Your task to perform on an android device: turn on improve location accuracy Image 0: 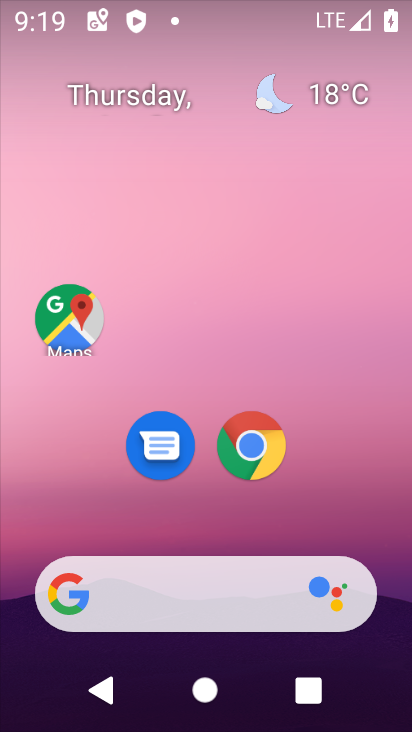
Step 0: drag from (384, 530) to (247, 159)
Your task to perform on an android device: turn on improve location accuracy Image 1: 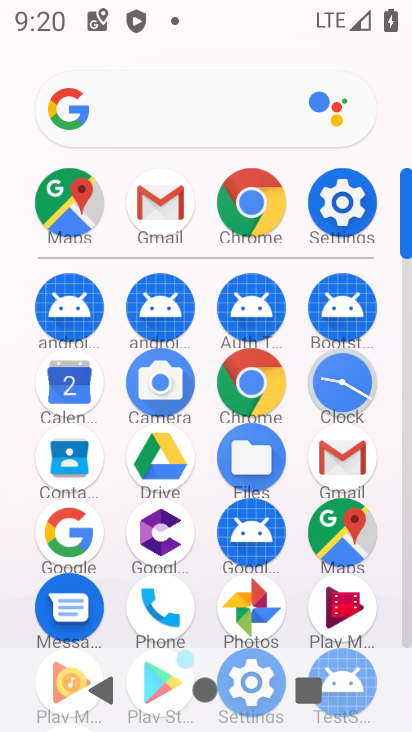
Step 1: click (327, 214)
Your task to perform on an android device: turn on improve location accuracy Image 2: 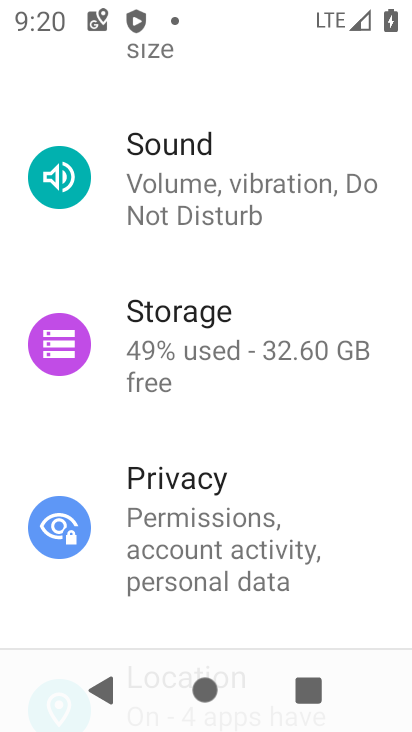
Step 2: drag from (301, 449) to (253, 214)
Your task to perform on an android device: turn on improve location accuracy Image 3: 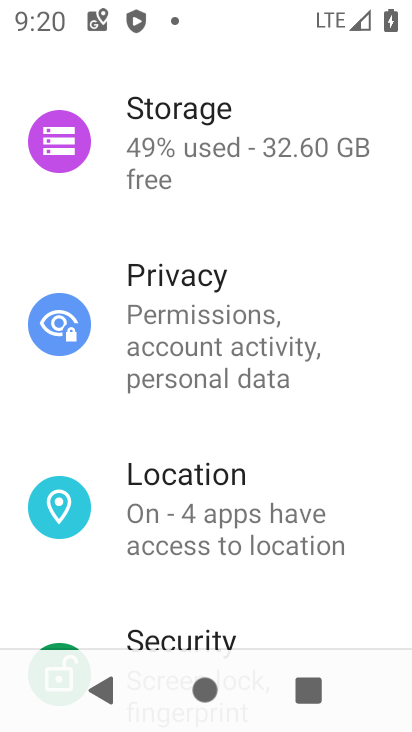
Step 3: click (296, 523)
Your task to perform on an android device: turn on improve location accuracy Image 4: 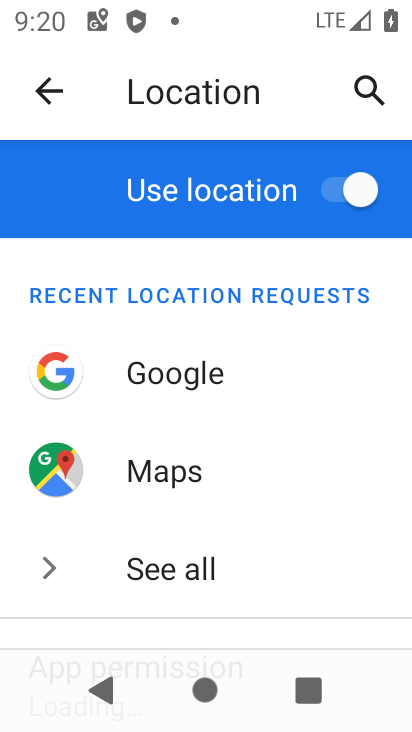
Step 4: drag from (289, 608) to (187, 135)
Your task to perform on an android device: turn on improve location accuracy Image 5: 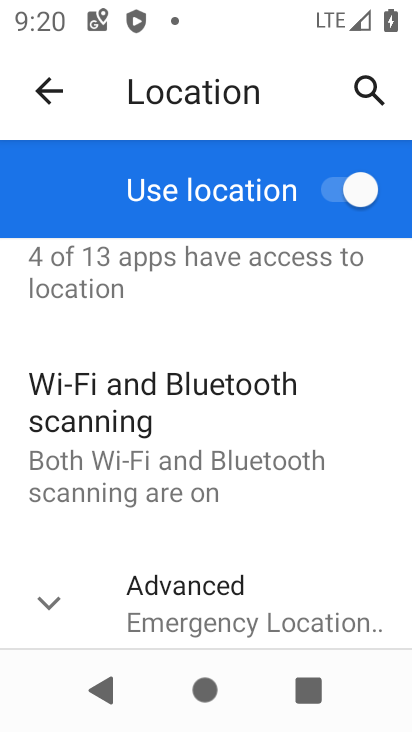
Step 5: click (281, 587)
Your task to perform on an android device: turn on improve location accuracy Image 6: 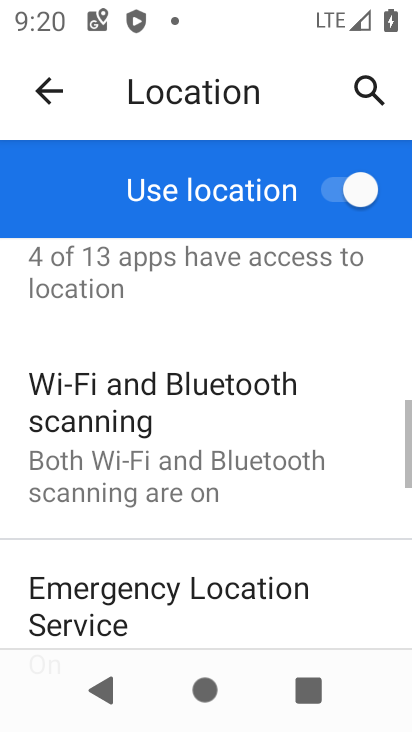
Step 6: drag from (281, 587) to (210, 198)
Your task to perform on an android device: turn on improve location accuracy Image 7: 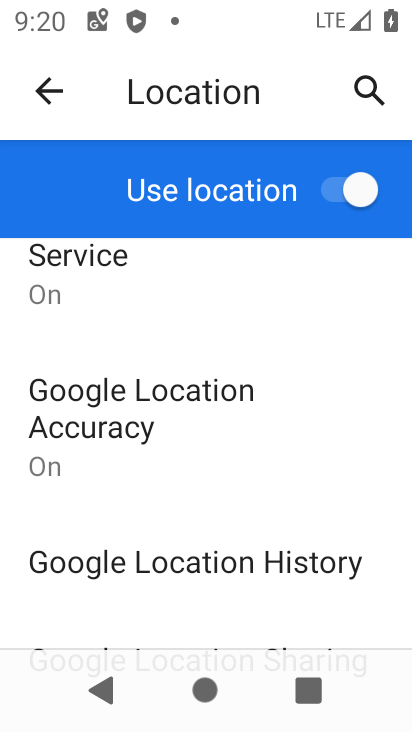
Step 7: click (251, 391)
Your task to perform on an android device: turn on improve location accuracy Image 8: 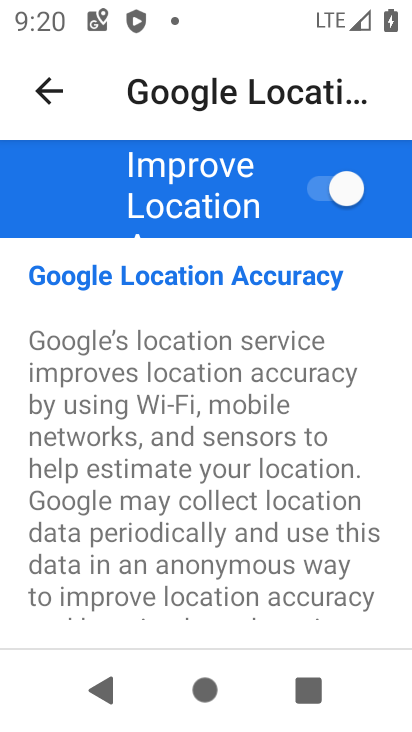
Step 8: task complete